Your task to perform on an android device: see creations saved in the google photos Image 0: 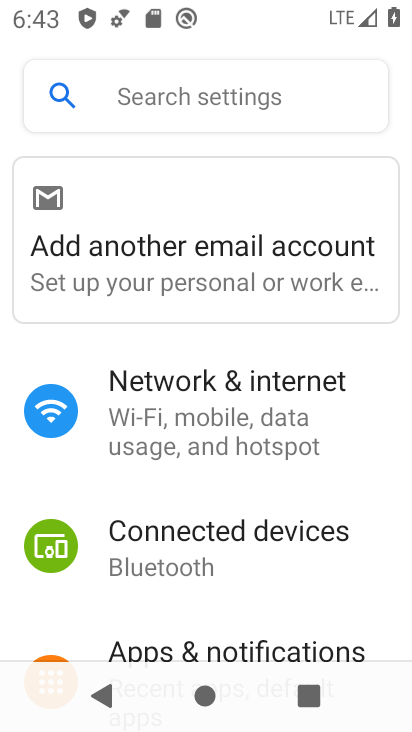
Step 0: press home button
Your task to perform on an android device: see creations saved in the google photos Image 1: 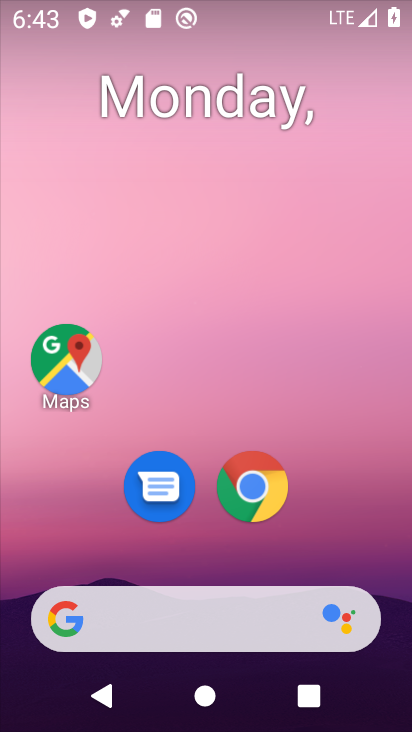
Step 1: drag from (341, 496) to (296, 92)
Your task to perform on an android device: see creations saved in the google photos Image 2: 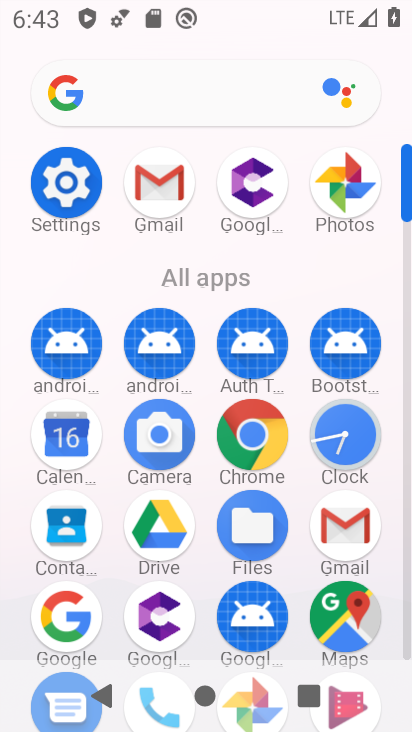
Step 2: click (336, 183)
Your task to perform on an android device: see creations saved in the google photos Image 3: 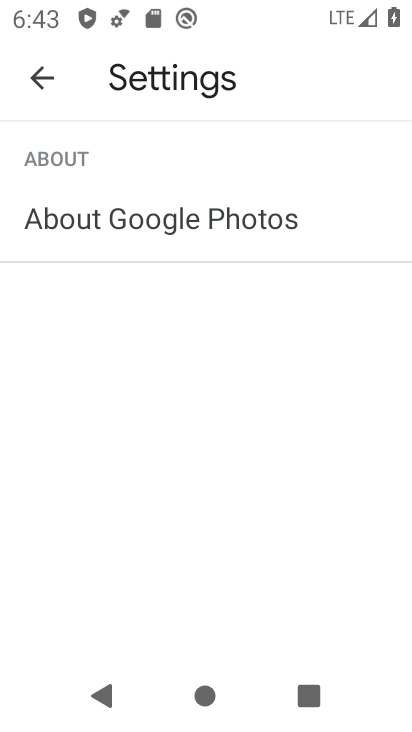
Step 3: click (39, 71)
Your task to perform on an android device: see creations saved in the google photos Image 4: 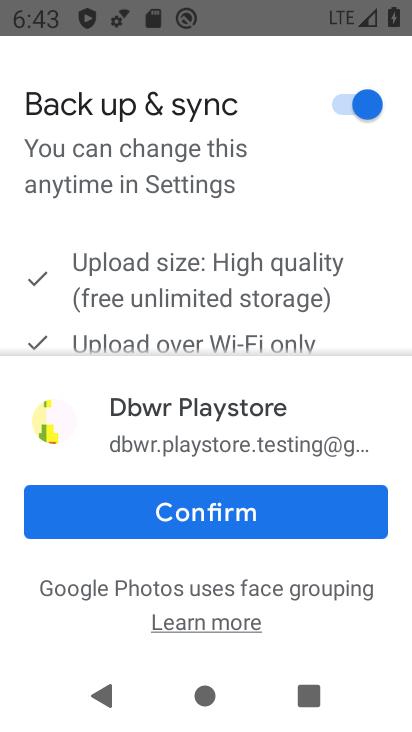
Step 4: click (233, 519)
Your task to perform on an android device: see creations saved in the google photos Image 5: 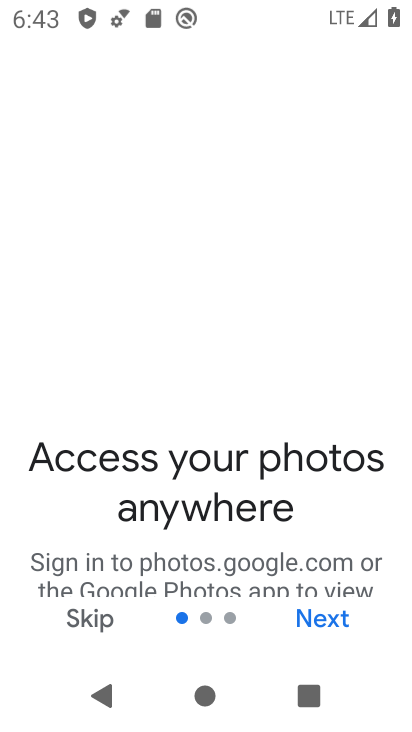
Step 5: click (311, 616)
Your task to perform on an android device: see creations saved in the google photos Image 6: 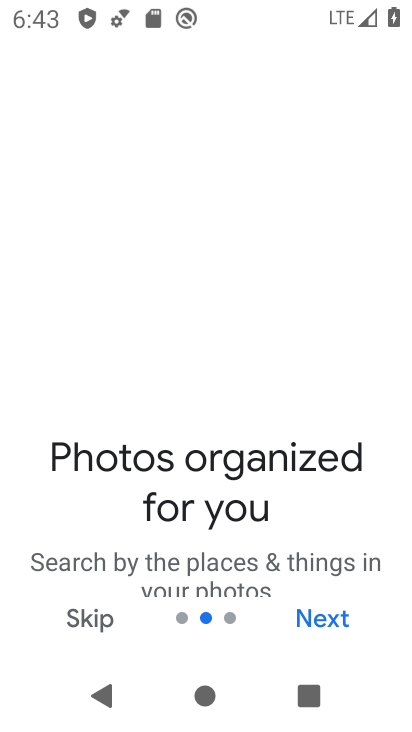
Step 6: click (311, 616)
Your task to perform on an android device: see creations saved in the google photos Image 7: 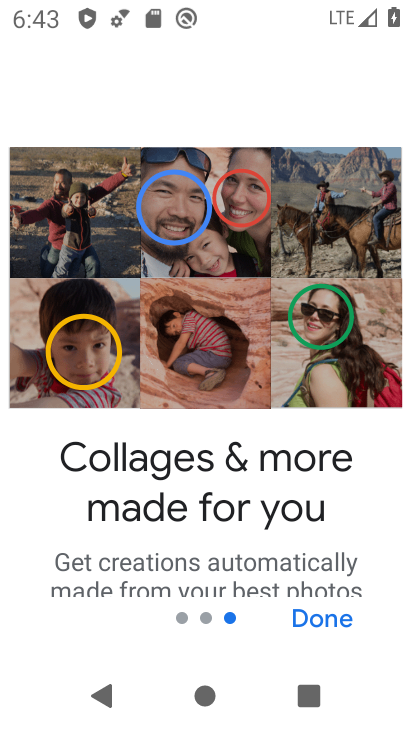
Step 7: click (311, 616)
Your task to perform on an android device: see creations saved in the google photos Image 8: 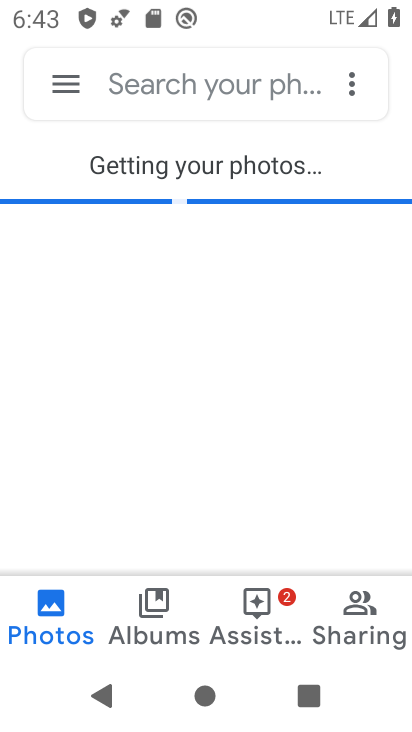
Step 8: click (193, 84)
Your task to perform on an android device: see creations saved in the google photos Image 9: 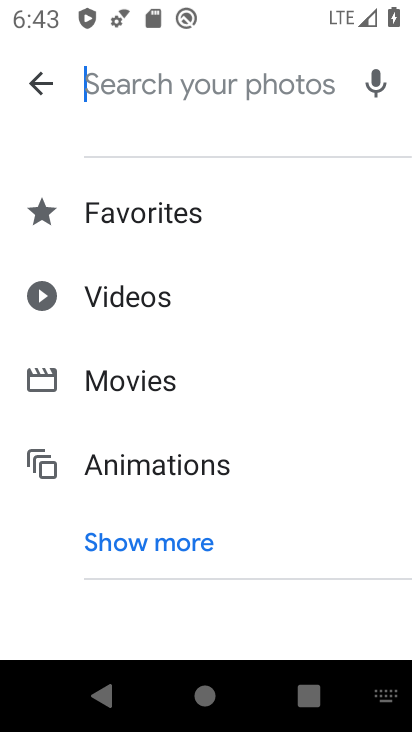
Step 9: click (146, 542)
Your task to perform on an android device: see creations saved in the google photos Image 10: 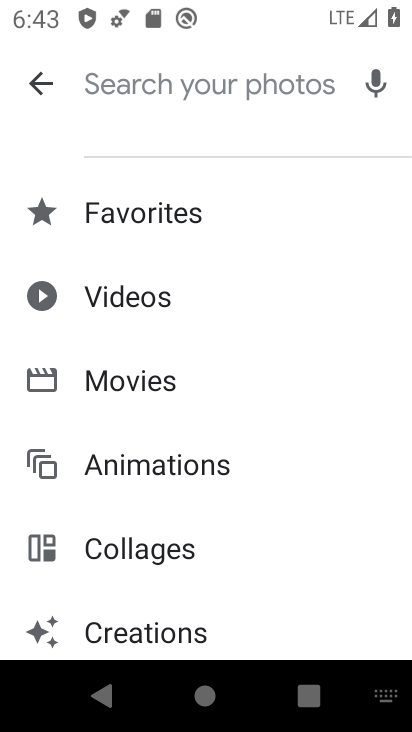
Step 10: click (146, 630)
Your task to perform on an android device: see creations saved in the google photos Image 11: 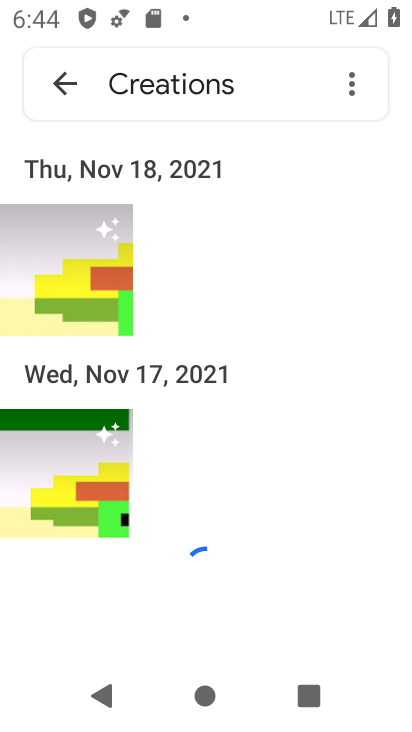
Step 11: task complete